Your task to perform on an android device: toggle wifi Image 0: 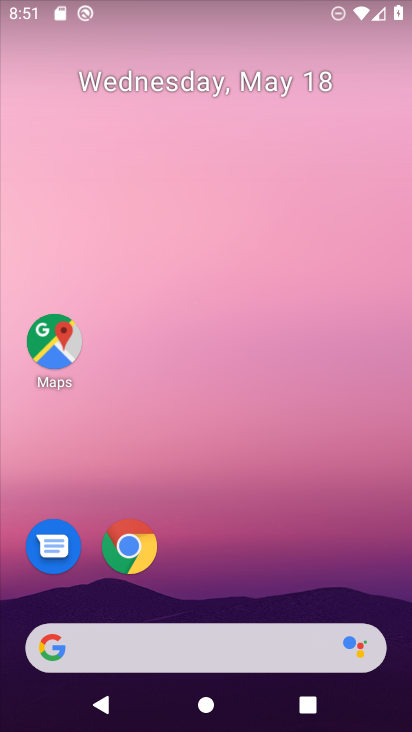
Step 0: drag from (236, 652) to (323, 164)
Your task to perform on an android device: toggle wifi Image 1: 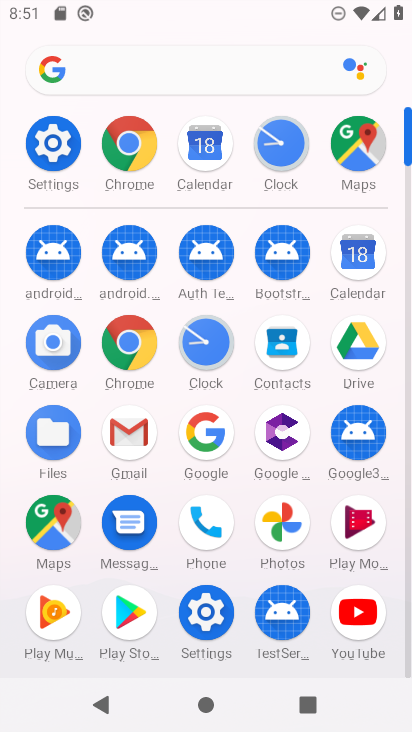
Step 1: click (48, 163)
Your task to perform on an android device: toggle wifi Image 2: 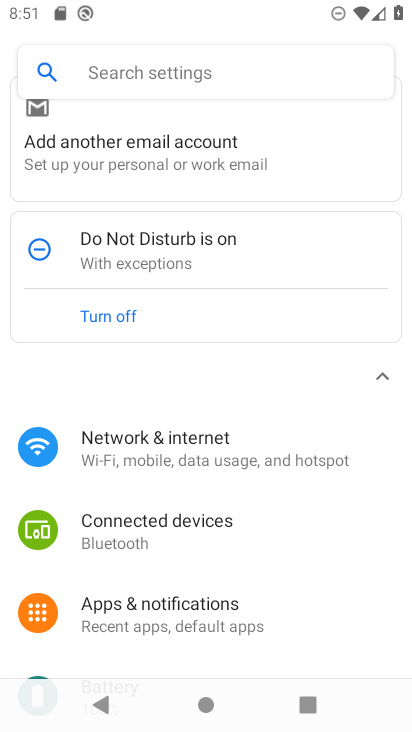
Step 2: click (143, 448)
Your task to perform on an android device: toggle wifi Image 3: 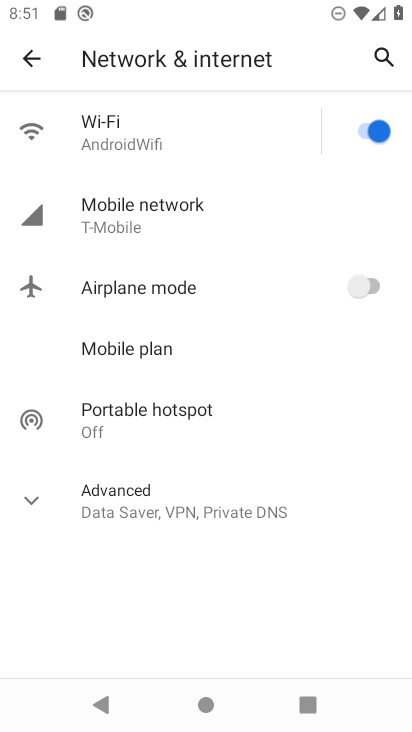
Step 3: click (151, 153)
Your task to perform on an android device: toggle wifi Image 4: 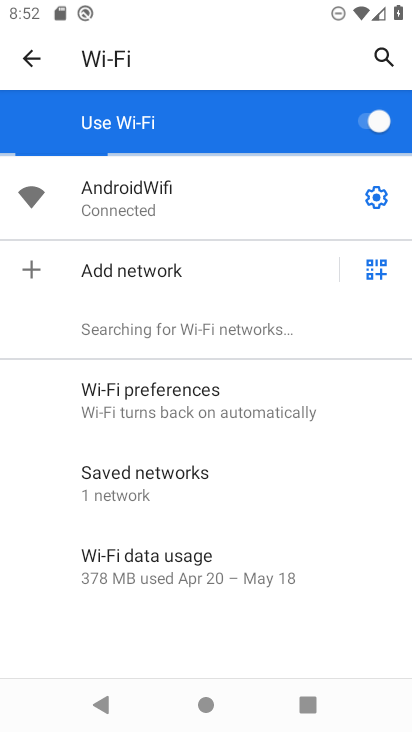
Step 4: task complete